Your task to perform on an android device: Go to sound settings Image 0: 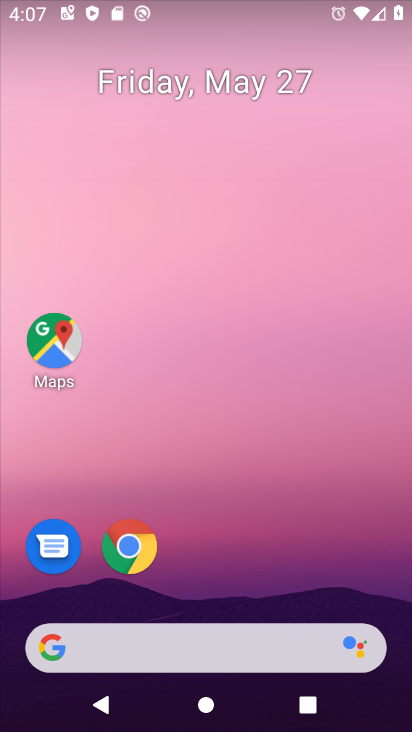
Step 0: press home button
Your task to perform on an android device: Go to sound settings Image 1: 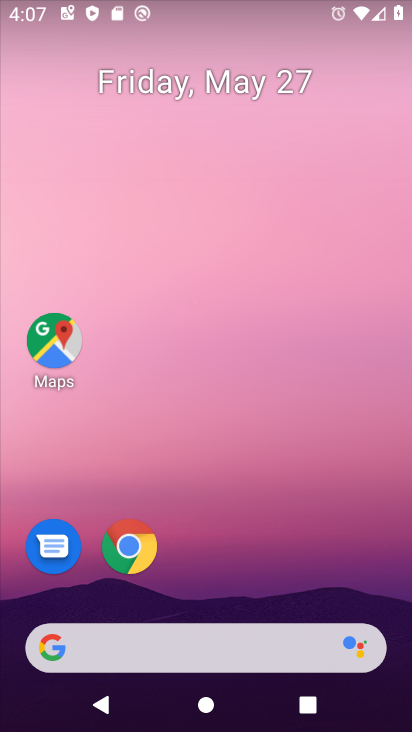
Step 1: drag from (205, 592) to (253, 57)
Your task to perform on an android device: Go to sound settings Image 2: 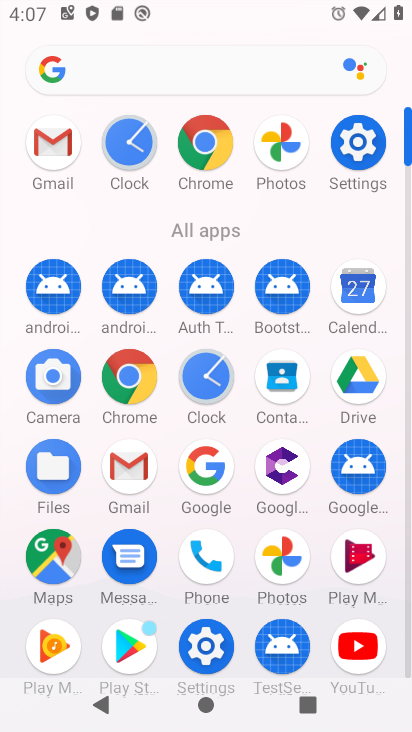
Step 2: click (353, 136)
Your task to perform on an android device: Go to sound settings Image 3: 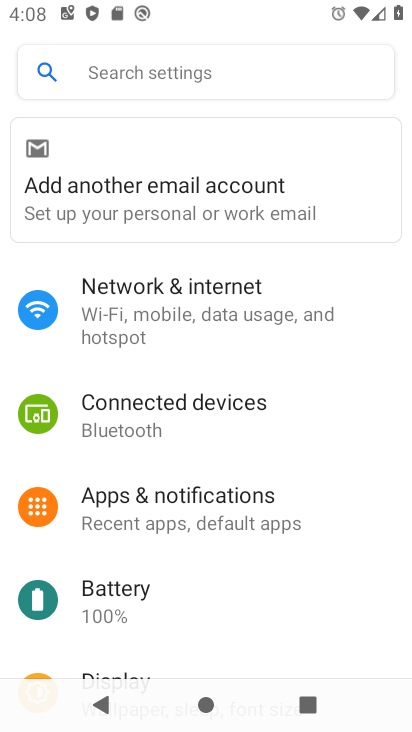
Step 3: drag from (191, 637) to (231, 162)
Your task to perform on an android device: Go to sound settings Image 4: 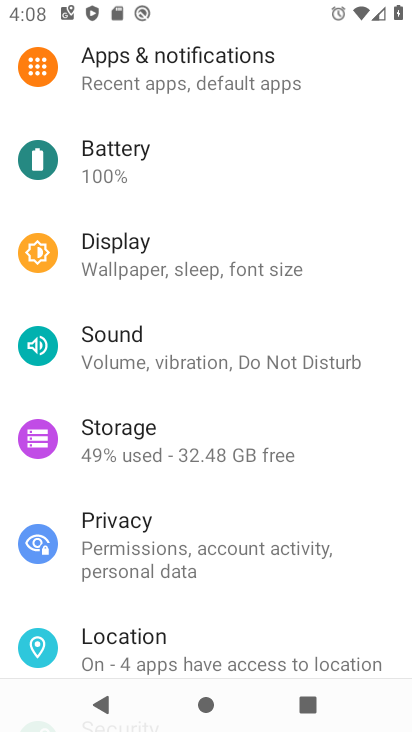
Step 4: click (164, 339)
Your task to perform on an android device: Go to sound settings Image 5: 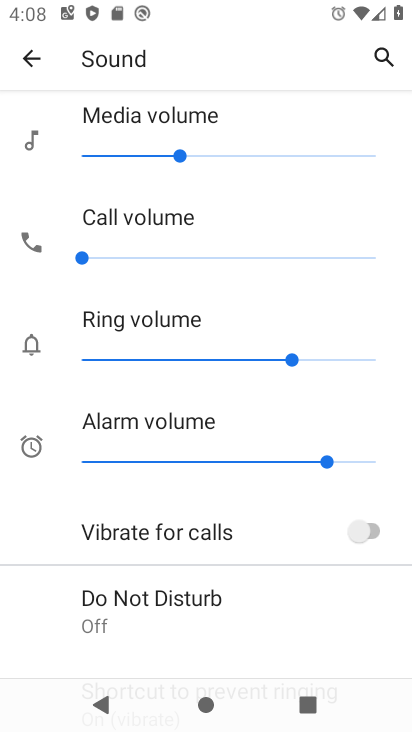
Step 5: drag from (215, 628) to (203, 148)
Your task to perform on an android device: Go to sound settings Image 6: 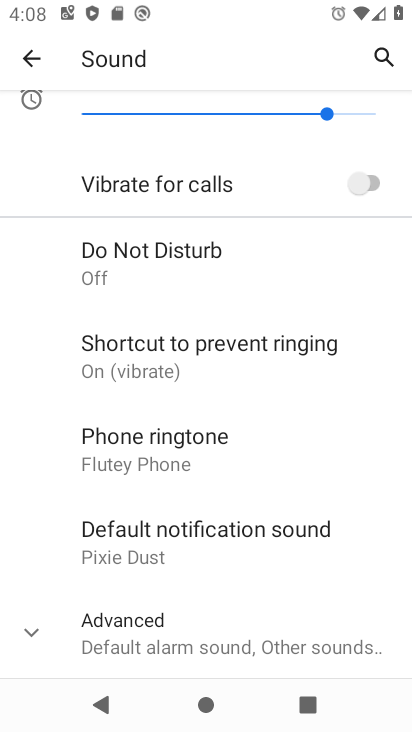
Step 6: click (27, 629)
Your task to perform on an android device: Go to sound settings Image 7: 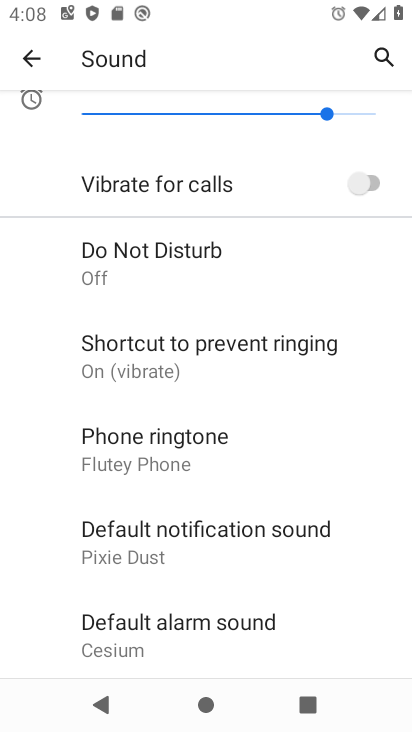
Step 7: task complete